Your task to perform on an android device: open app "TextNow: Call + Text Unlimited" Image 0: 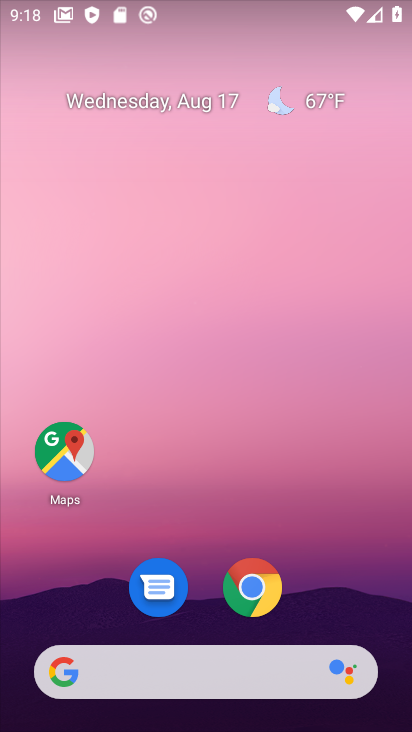
Step 0: drag from (197, 553) to (185, 179)
Your task to perform on an android device: open app "TextNow: Call + Text Unlimited" Image 1: 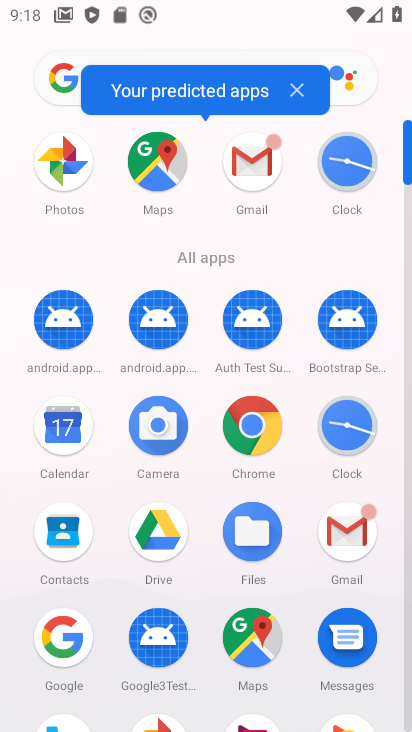
Step 1: drag from (195, 624) to (151, 382)
Your task to perform on an android device: open app "TextNow: Call + Text Unlimited" Image 2: 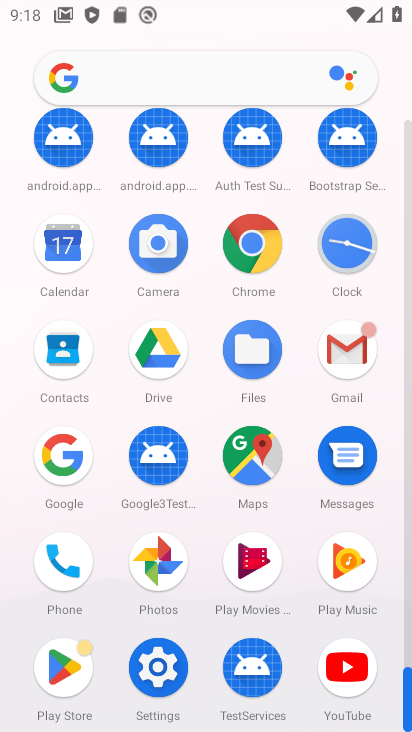
Step 2: click (41, 673)
Your task to perform on an android device: open app "TextNow: Call + Text Unlimited" Image 3: 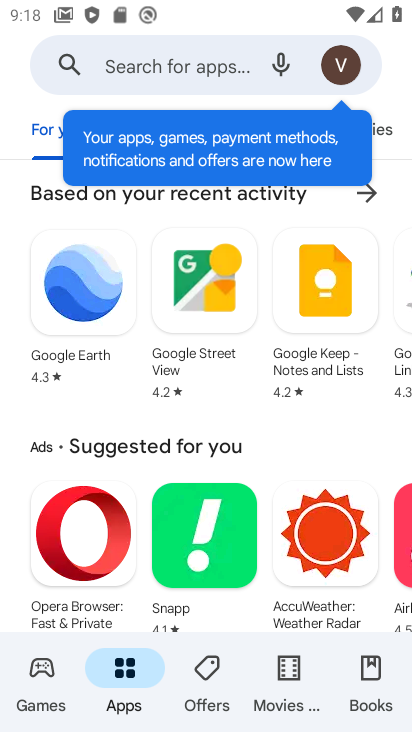
Step 3: click (216, 75)
Your task to perform on an android device: open app "TextNow: Call + Text Unlimited" Image 4: 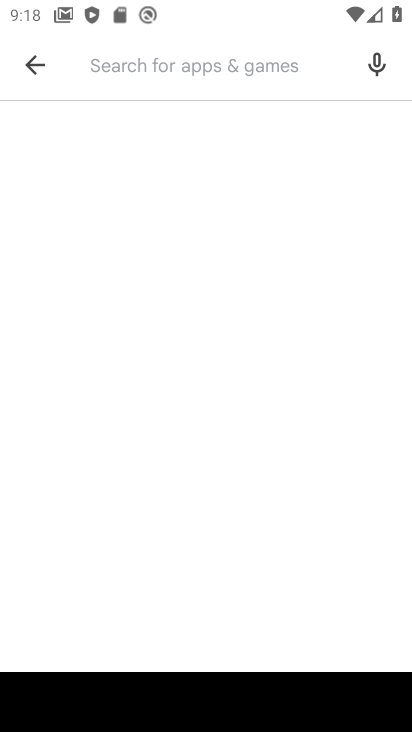
Step 4: type "TextNow: Call + Text Unlimited"
Your task to perform on an android device: open app "TextNow: Call + Text Unlimited" Image 5: 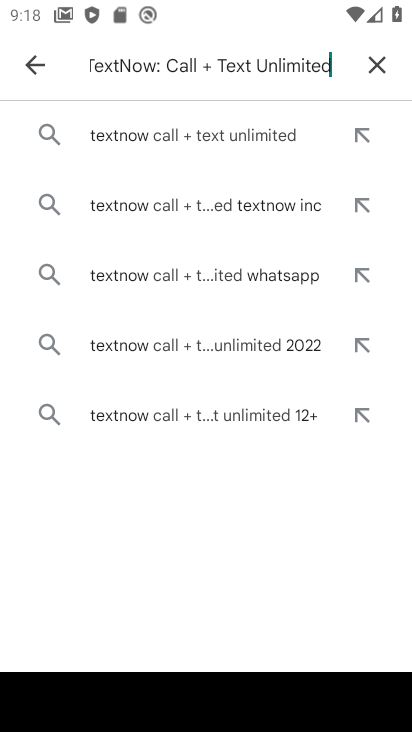
Step 5: click (230, 126)
Your task to perform on an android device: open app "TextNow: Call + Text Unlimited" Image 6: 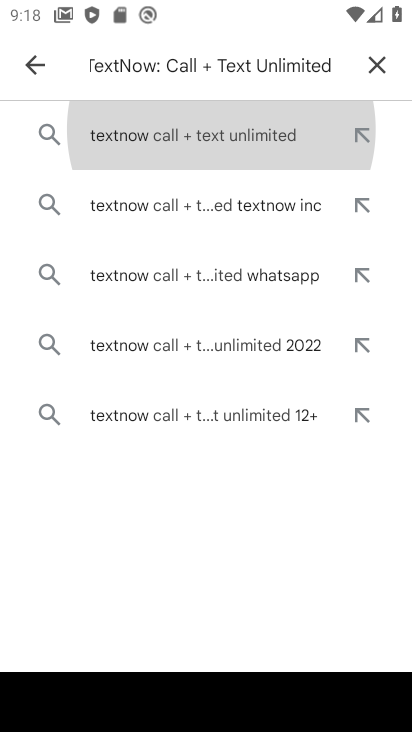
Step 6: click (230, 126)
Your task to perform on an android device: open app "TextNow: Call + Text Unlimited" Image 7: 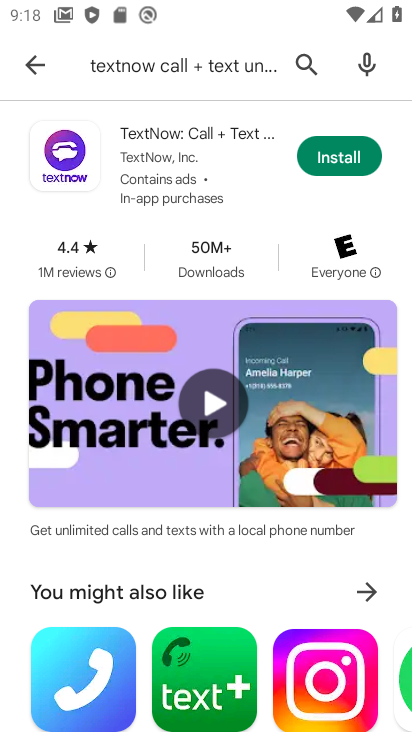
Step 7: click (314, 150)
Your task to perform on an android device: open app "TextNow: Call + Text Unlimited" Image 8: 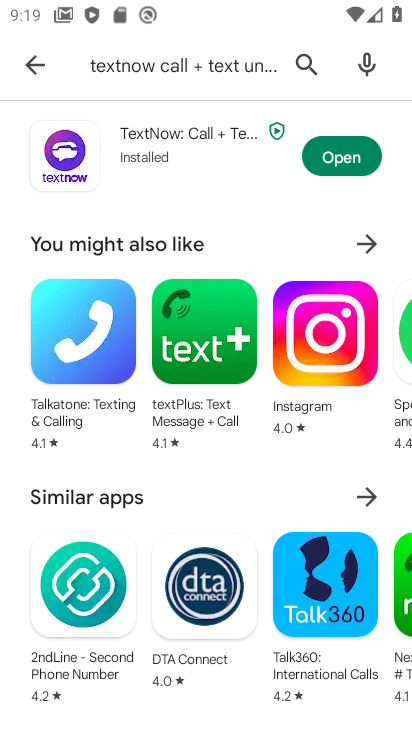
Step 8: click (314, 150)
Your task to perform on an android device: open app "TextNow: Call + Text Unlimited" Image 9: 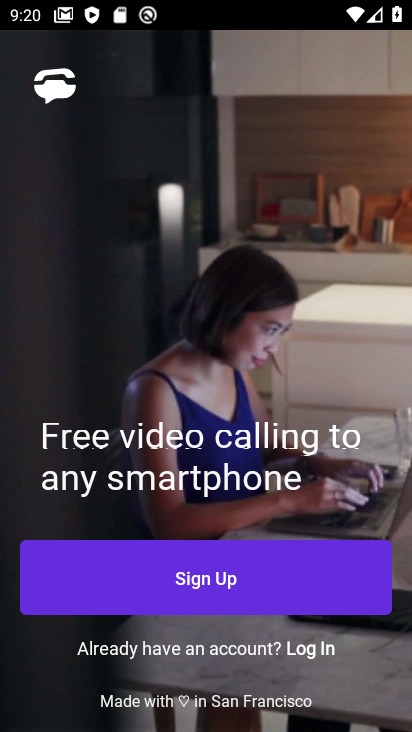
Step 9: task complete